Your task to perform on an android device: add a contact Image 0: 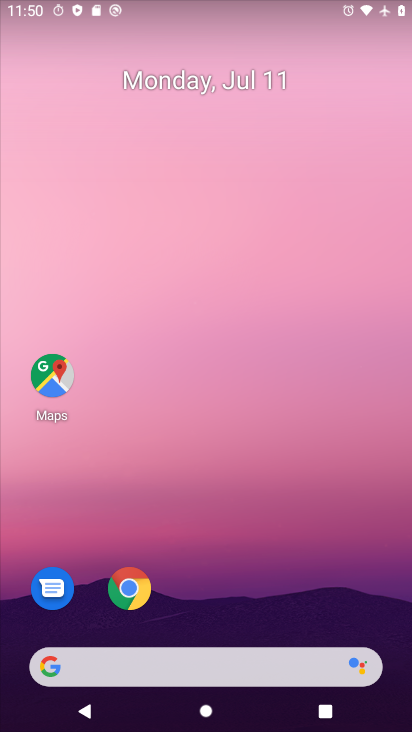
Step 0: drag from (209, 660) to (357, 43)
Your task to perform on an android device: add a contact Image 1: 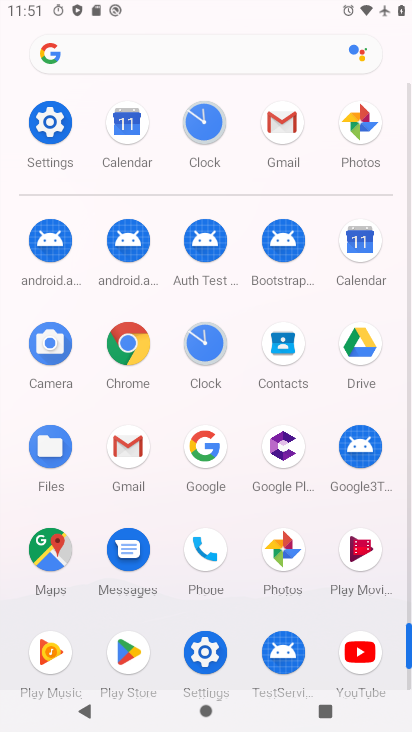
Step 1: click (279, 354)
Your task to perform on an android device: add a contact Image 2: 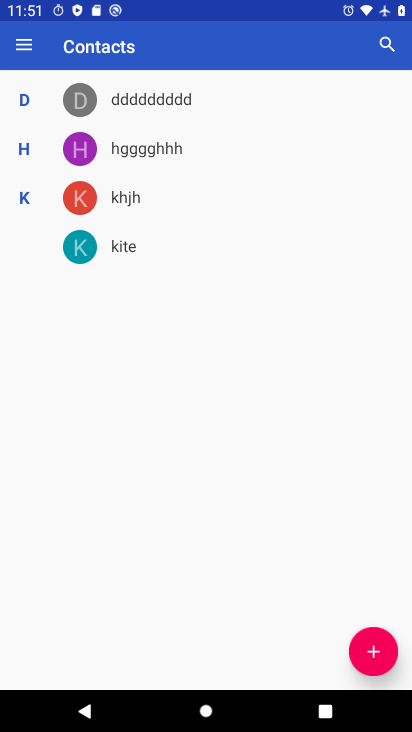
Step 2: click (380, 664)
Your task to perform on an android device: add a contact Image 3: 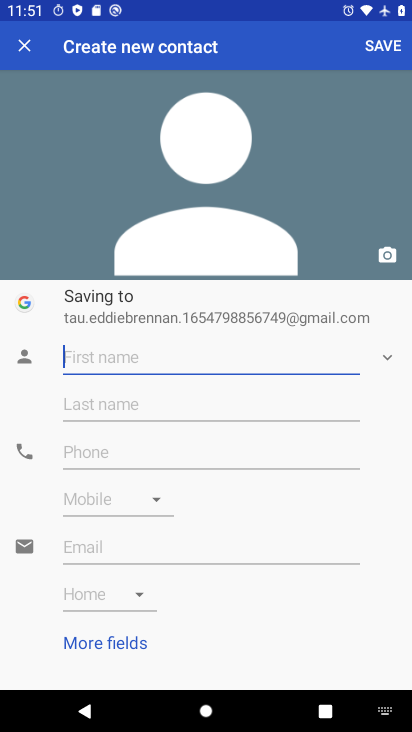
Step 3: click (75, 343)
Your task to perform on an android device: add a contact Image 4: 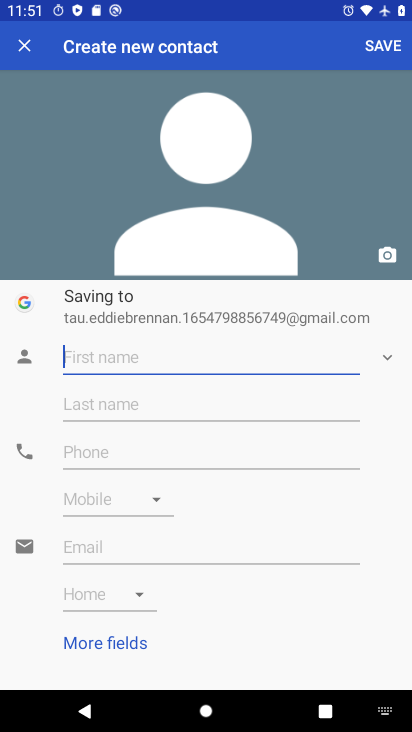
Step 4: type "gytfdfghh"
Your task to perform on an android device: add a contact Image 5: 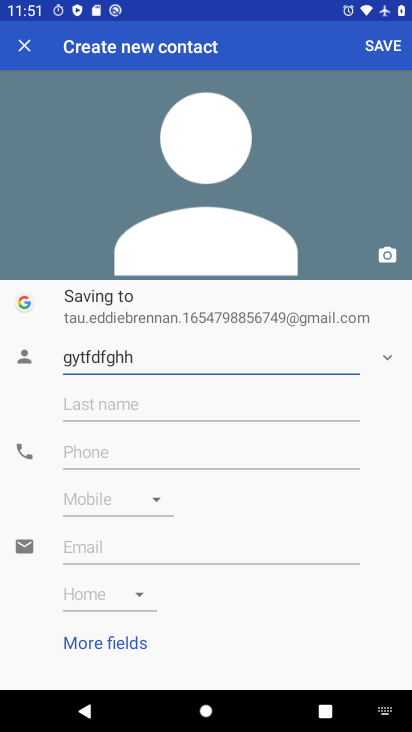
Step 5: click (128, 449)
Your task to perform on an android device: add a contact Image 6: 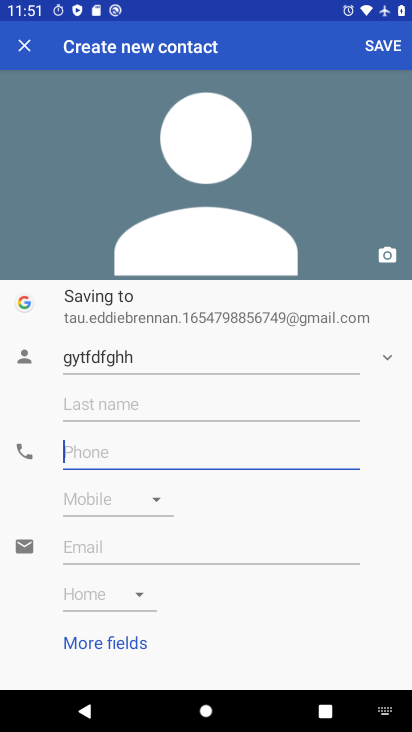
Step 6: type "4354666"
Your task to perform on an android device: add a contact Image 7: 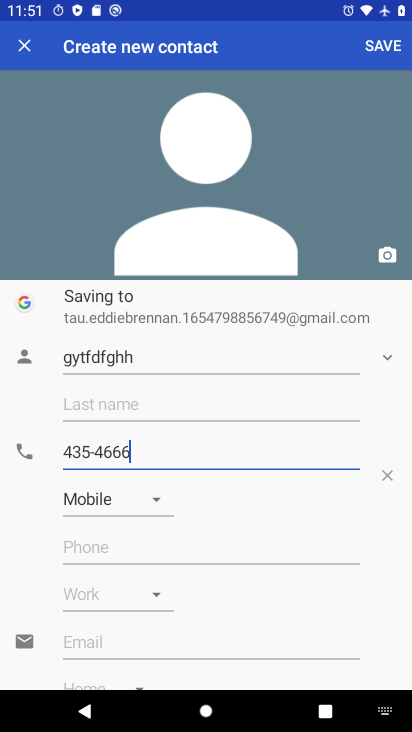
Step 7: click (384, 48)
Your task to perform on an android device: add a contact Image 8: 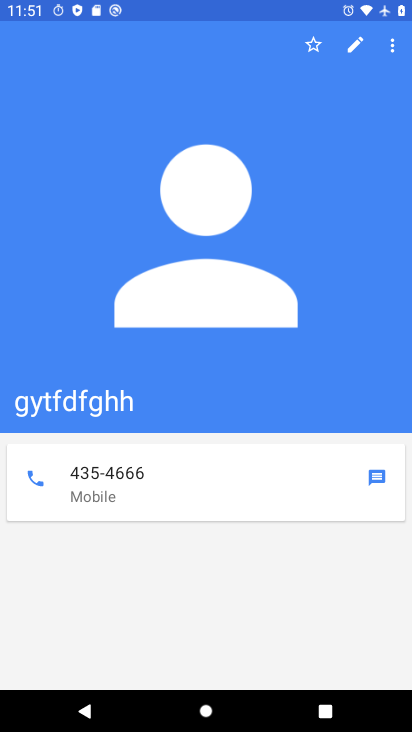
Step 8: task complete